Your task to perform on an android device: turn notification dots on Image 0: 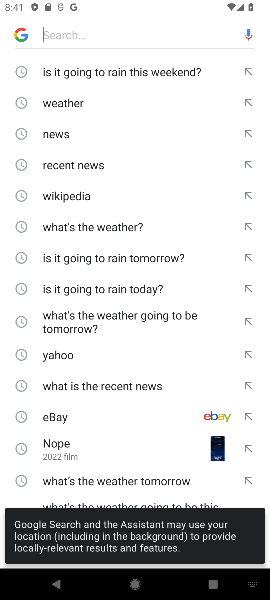
Step 0: press home button
Your task to perform on an android device: turn notification dots on Image 1: 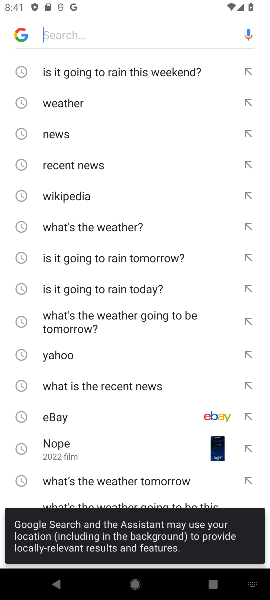
Step 1: press home button
Your task to perform on an android device: turn notification dots on Image 2: 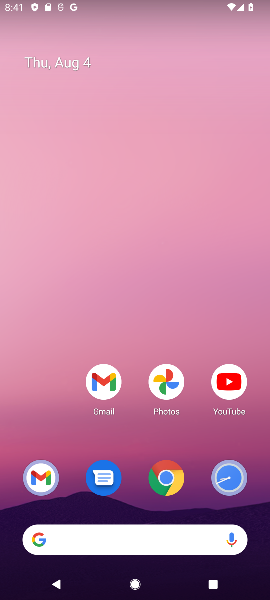
Step 2: drag from (137, 445) to (79, 79)
Your task to perform on an android device: turn notification dots on Image 3: 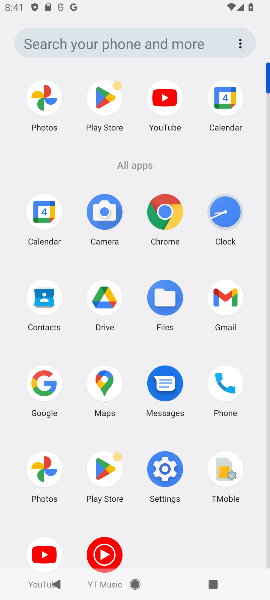
Step 3: click (171, 484)
Your task to perform on an android device: turn notification dots on Image 4: 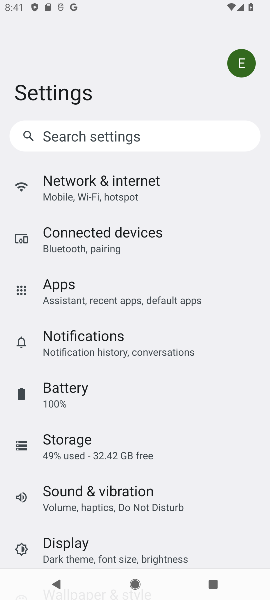
Step 4: drag from (137, 477) to (138, 403)
Your task to perform on an android device: turn notification dots on Image 5: 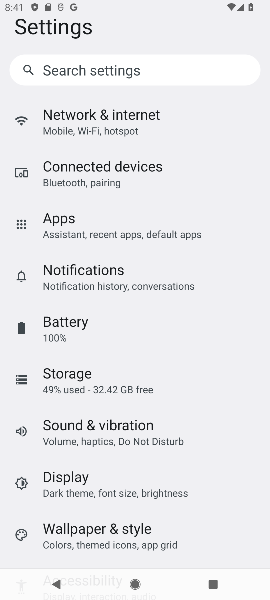
Step 5: click (101, 282)
Your task to perform on an android device: turn notification dots on Image 6: 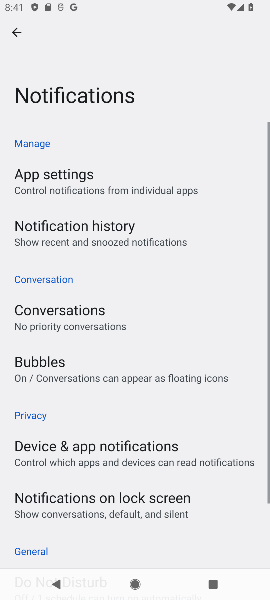
Step 6: task complete